Your task to perform on an android device: Open Yahoo.com Image 0: 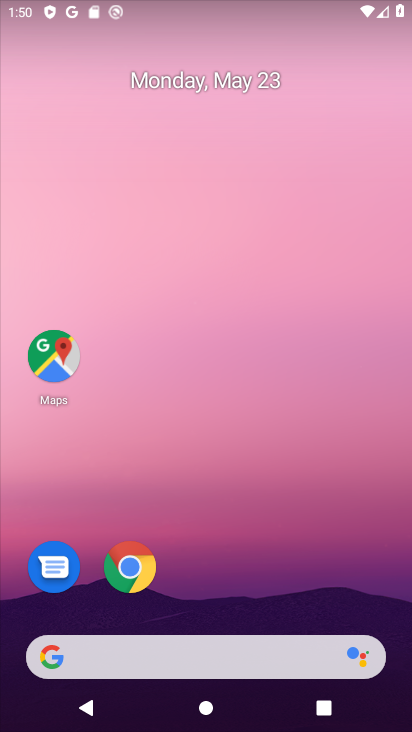
Step 0: click (134, 570)
Your task to perform on an android device: Open Yahoo.com Image 1: 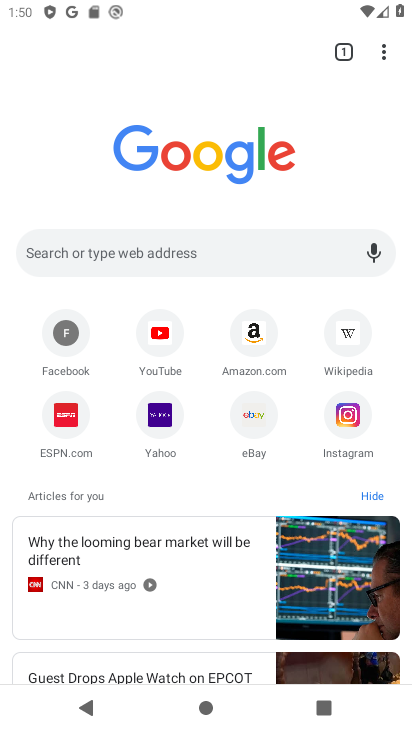
Step 1: click (80, 256)
Your task to perform on an android device: Open Yahoo.com Image 2: 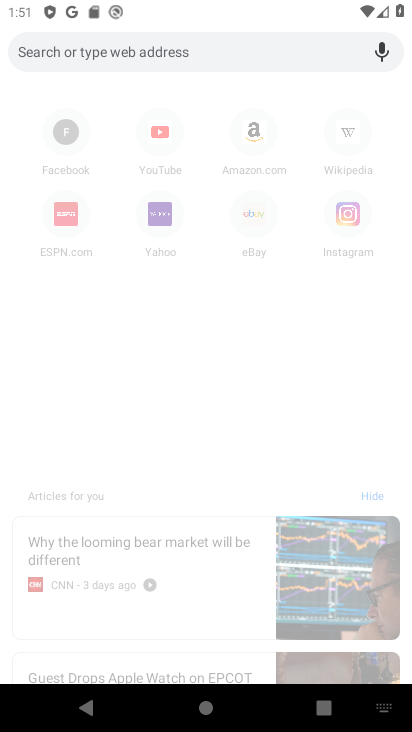
Step 2: type "yahoo.com"
Your task to perform on an android device: Open Yahoo.com Image 3: 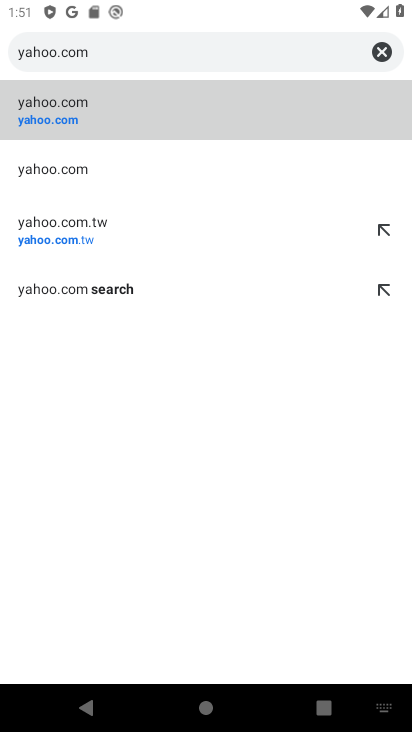
Step 3: click (144, 117)
Your task to perform on an android device: Open Yahoo.com Image 4: 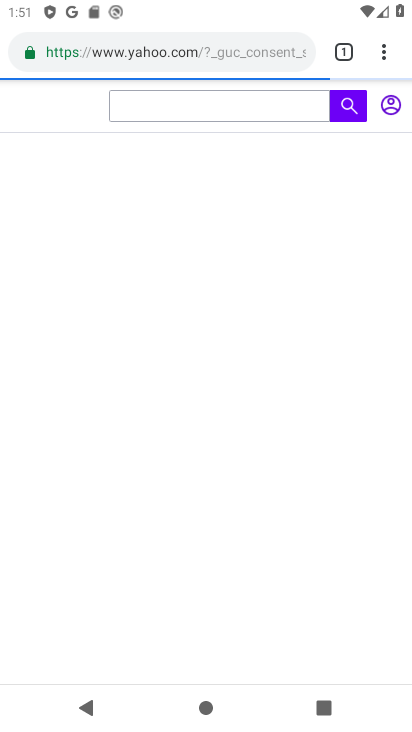
Step 4: task complete